Your task to perform on an android device: uninstall "Upside-Cash back on gas & food" Image 0: 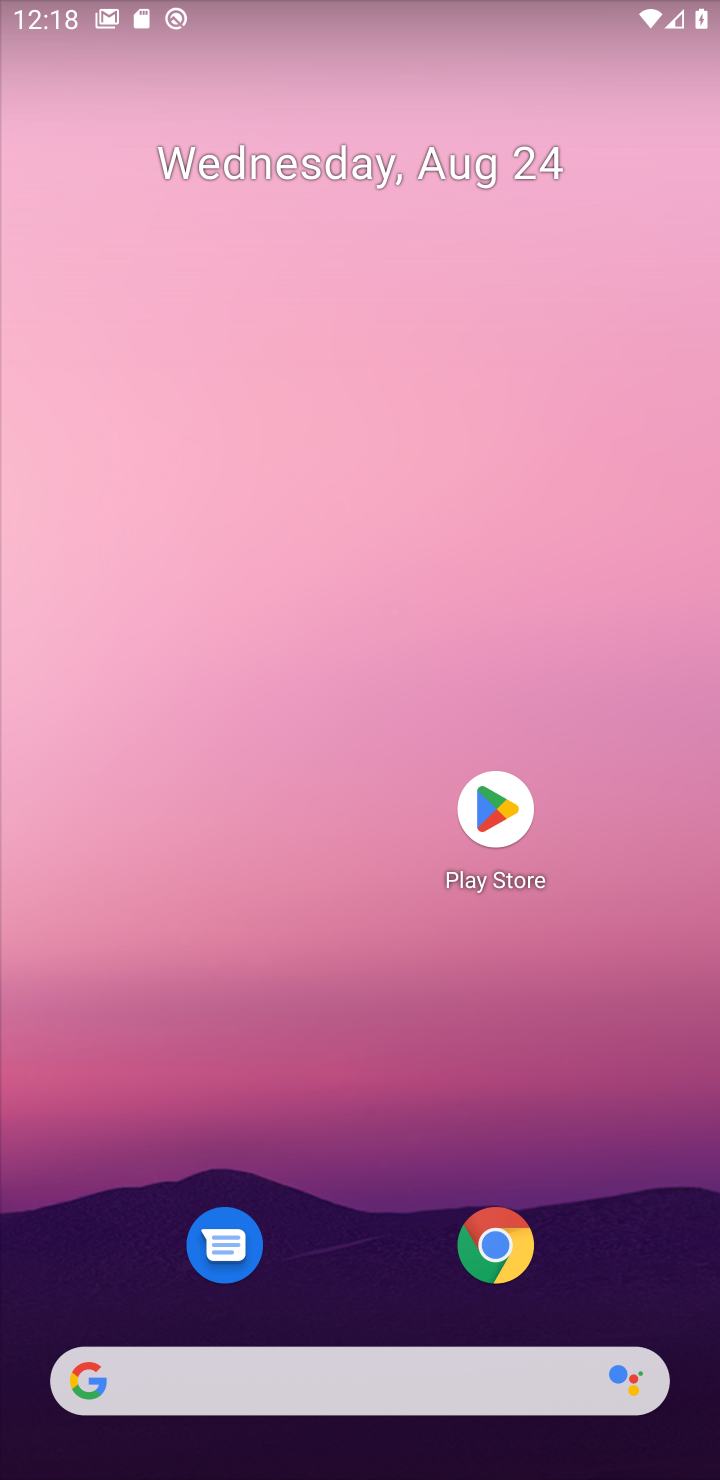
Step 0: click (490, 800)
Your task to perform on an android device: uninstall "Upside-Cash back on gas & food" Image 1: 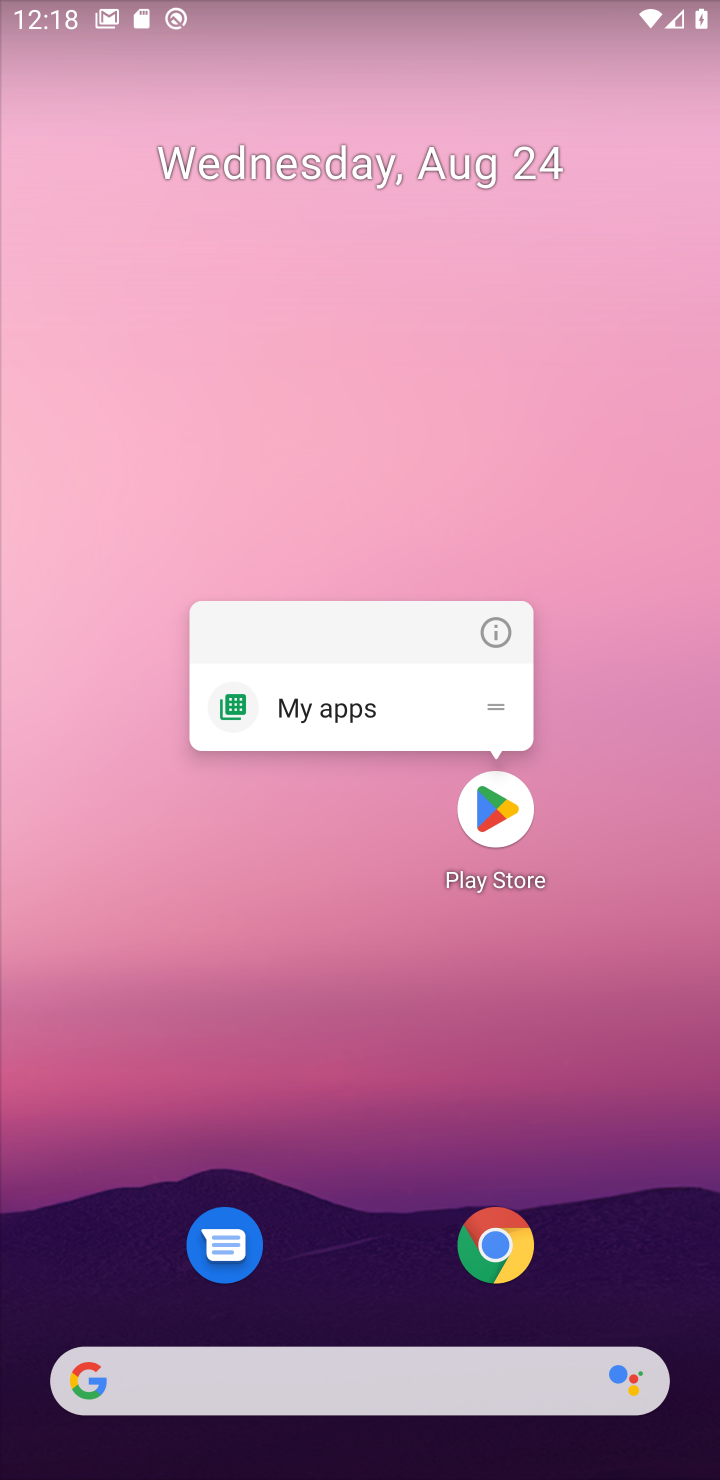
Step 1: click (490, 804)
Your task to perform on an android device: uninstall "Upside-Cash back on gas & food" Image 2: 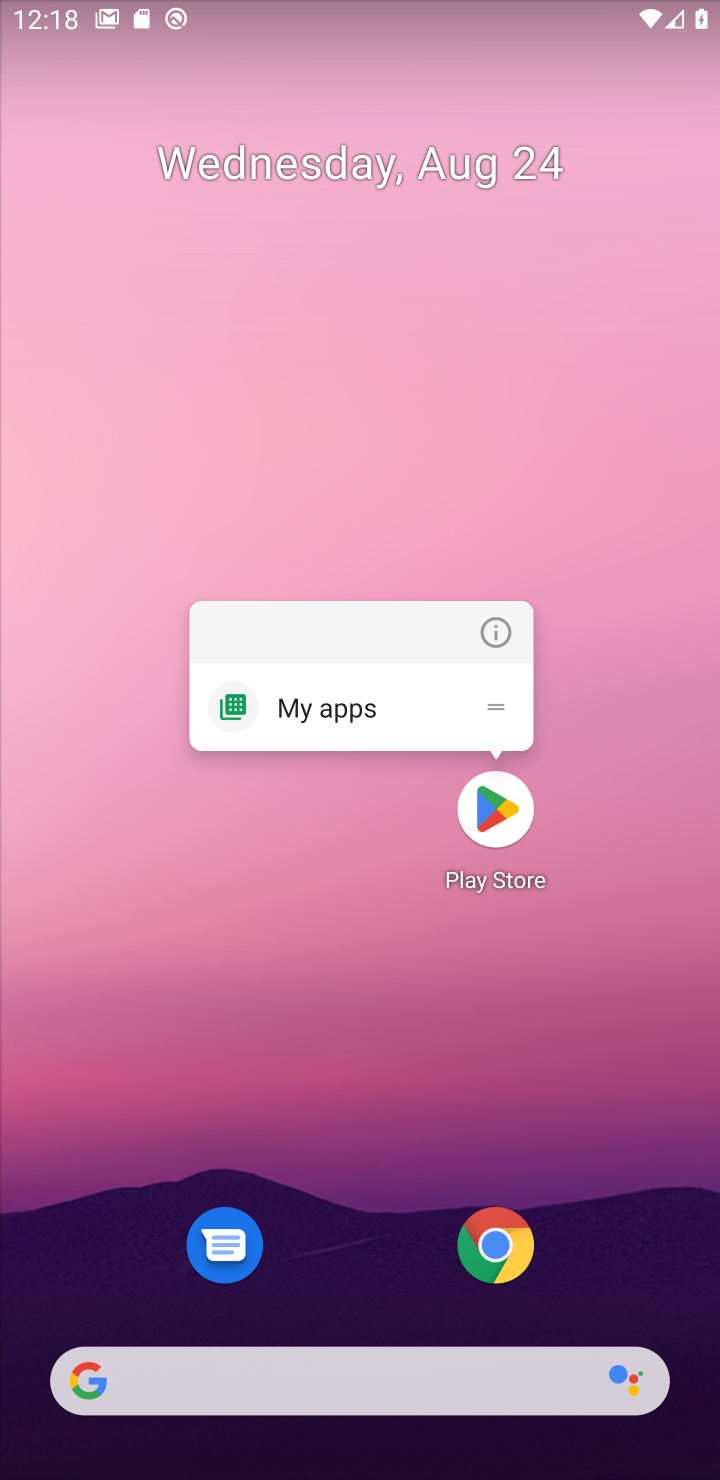
Step 2: click (490, 804)
Your task to perform on an android device: uninstall "Upside-Cash back on gas & food" Image 3: 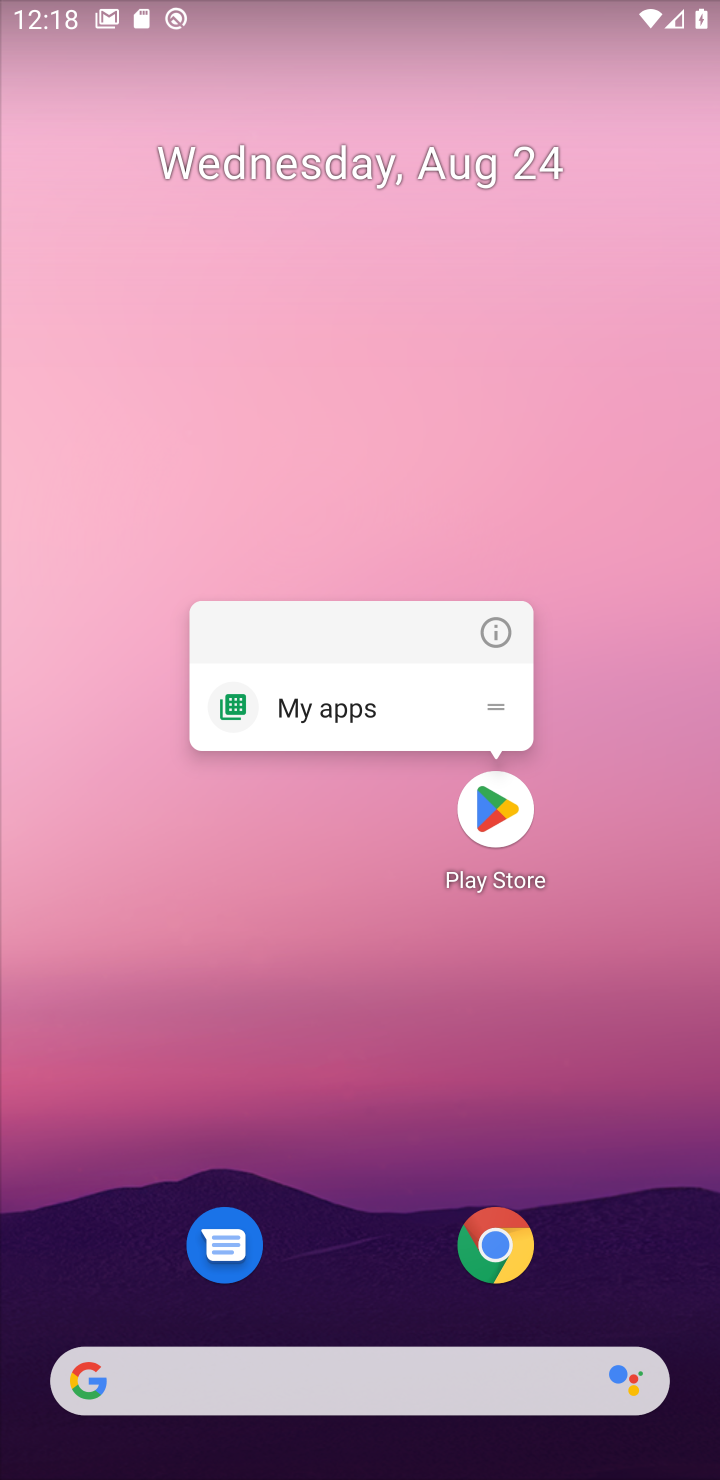
Step 3: click (490, 804)
Your task to perform on an android device: uninstall "Upside-Cash back on gas & food" Image 4: 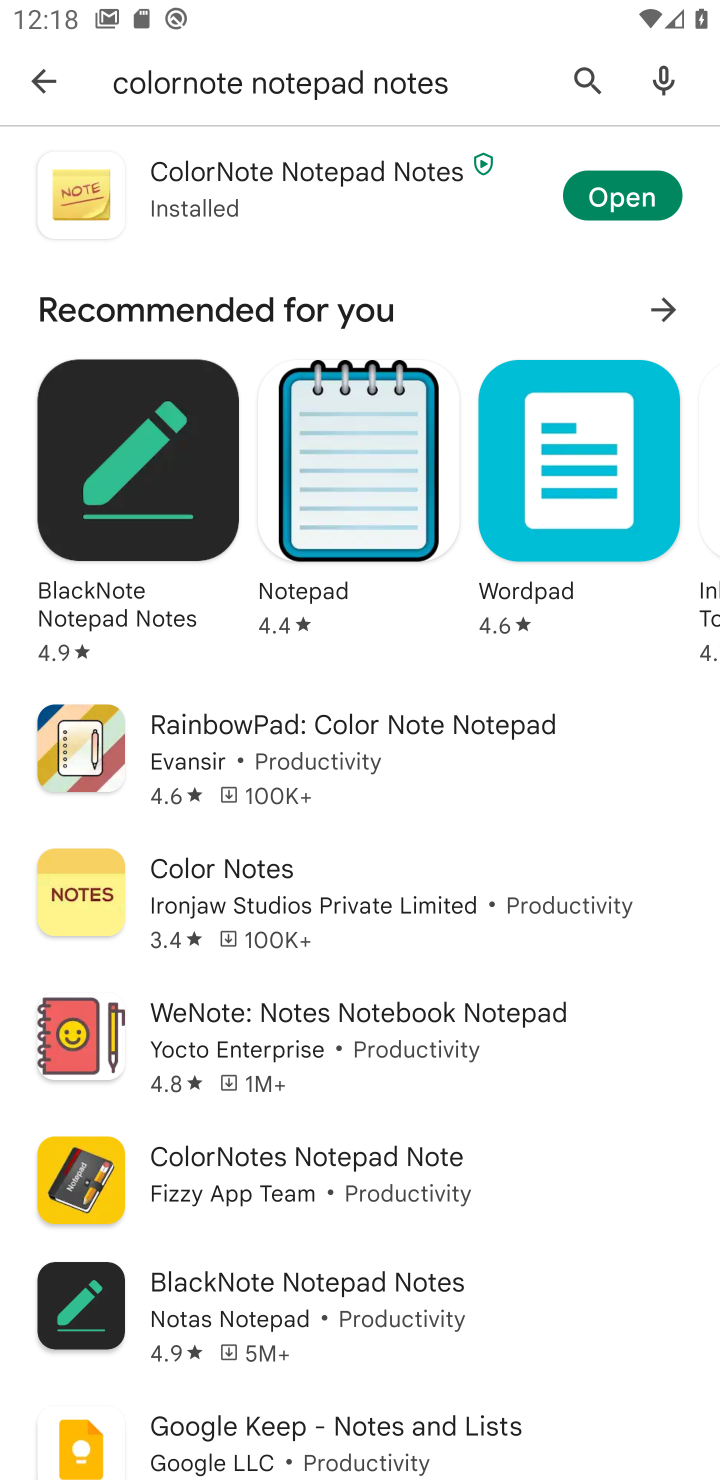
Step 4: click (582, 74)
Your task to perform on an android device: uninstall "Upside-Cash back on gas & food" Image 5: 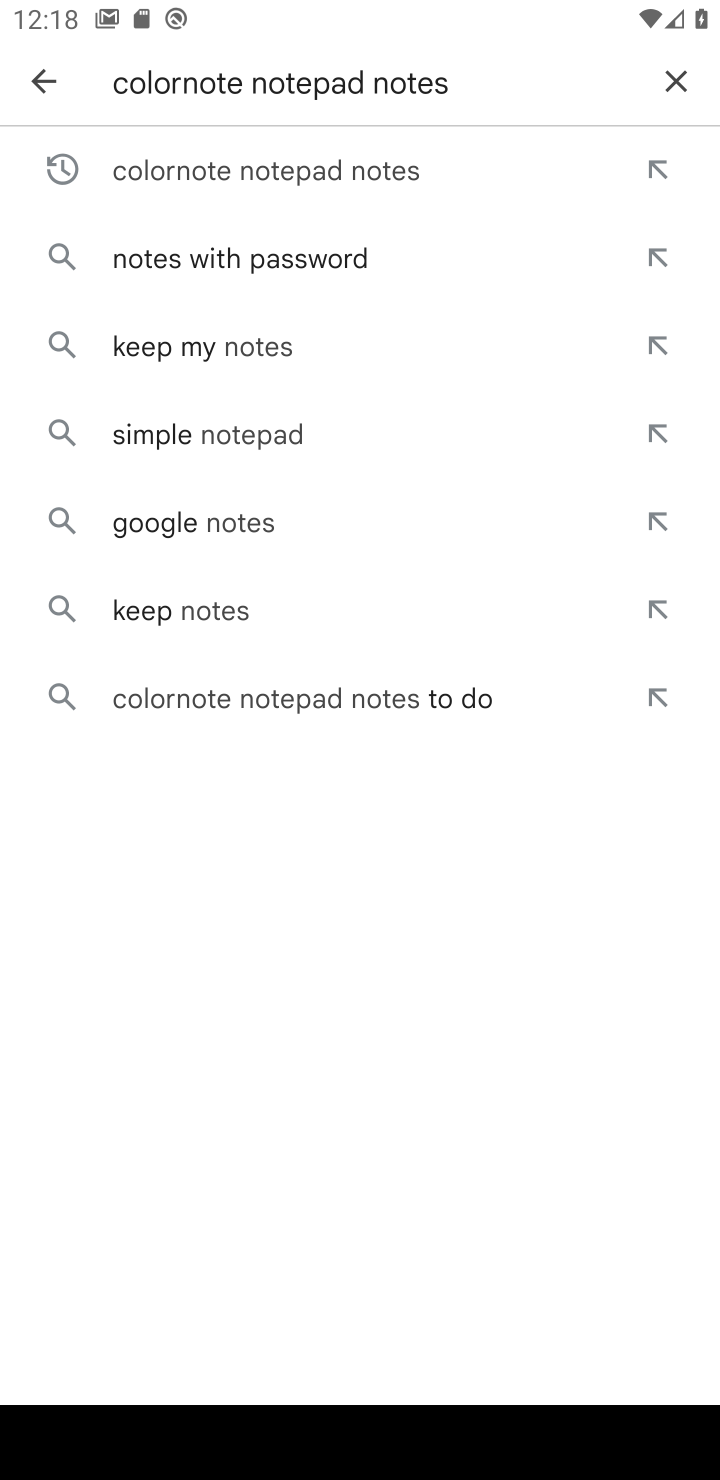
Step 5: click (671, 80)
Your task to perform on an android device: uninstall "Upside-Cash back on gas & food" Image 6: 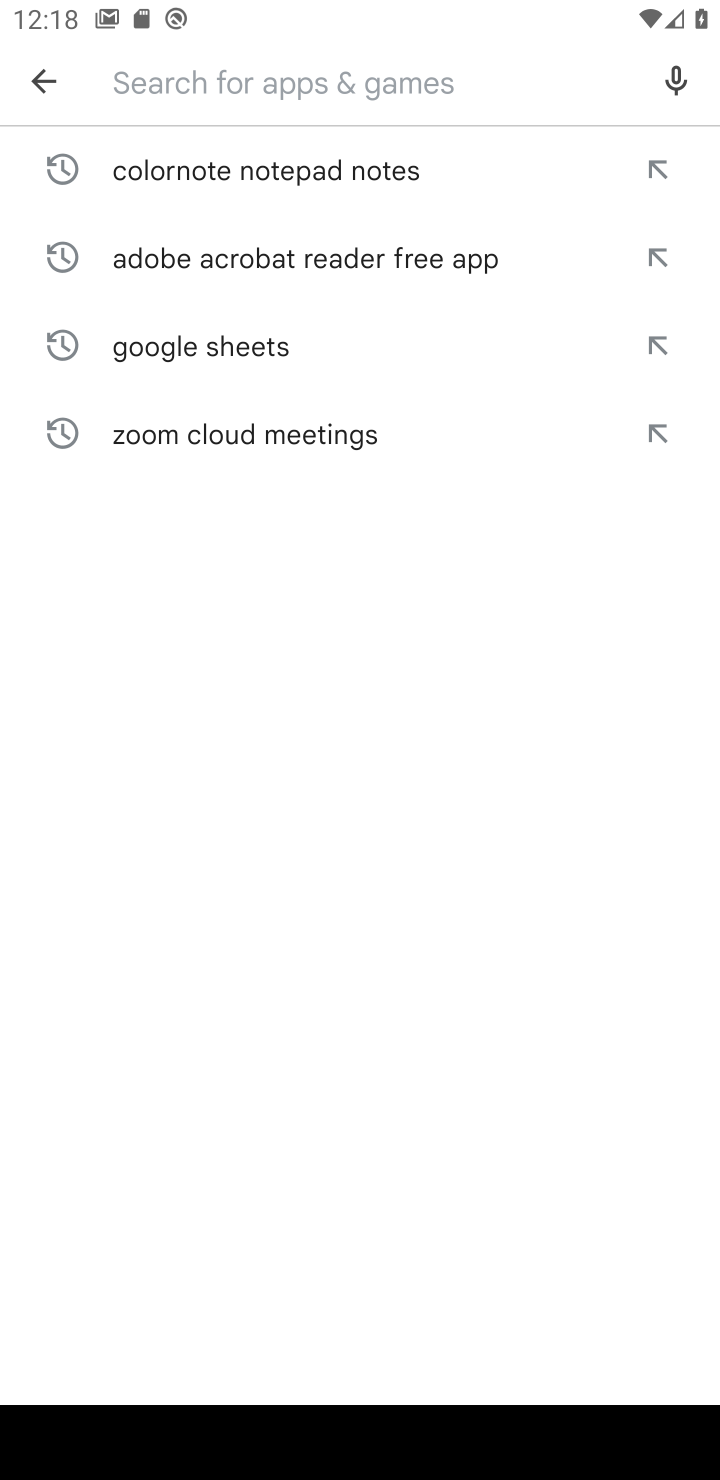
Step 6: type "Upside-Cash back on gas & food"
Your task to perform on an android device: uninstall "Upside-Cash back on gas & food" Image 7: 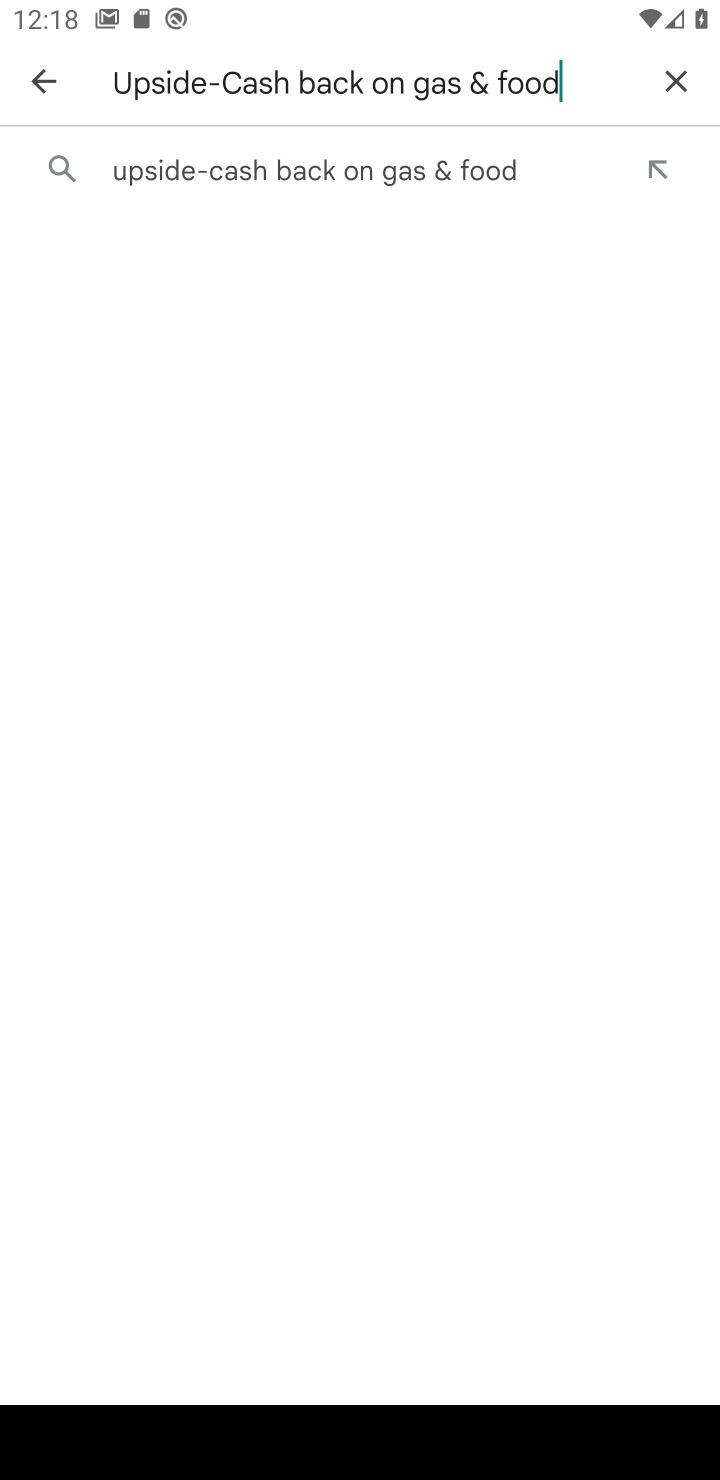
Step 7: click (323, 170)
Your task to perform on an android device: uninstall "Upside-Cash back on gas & food" Image 8: 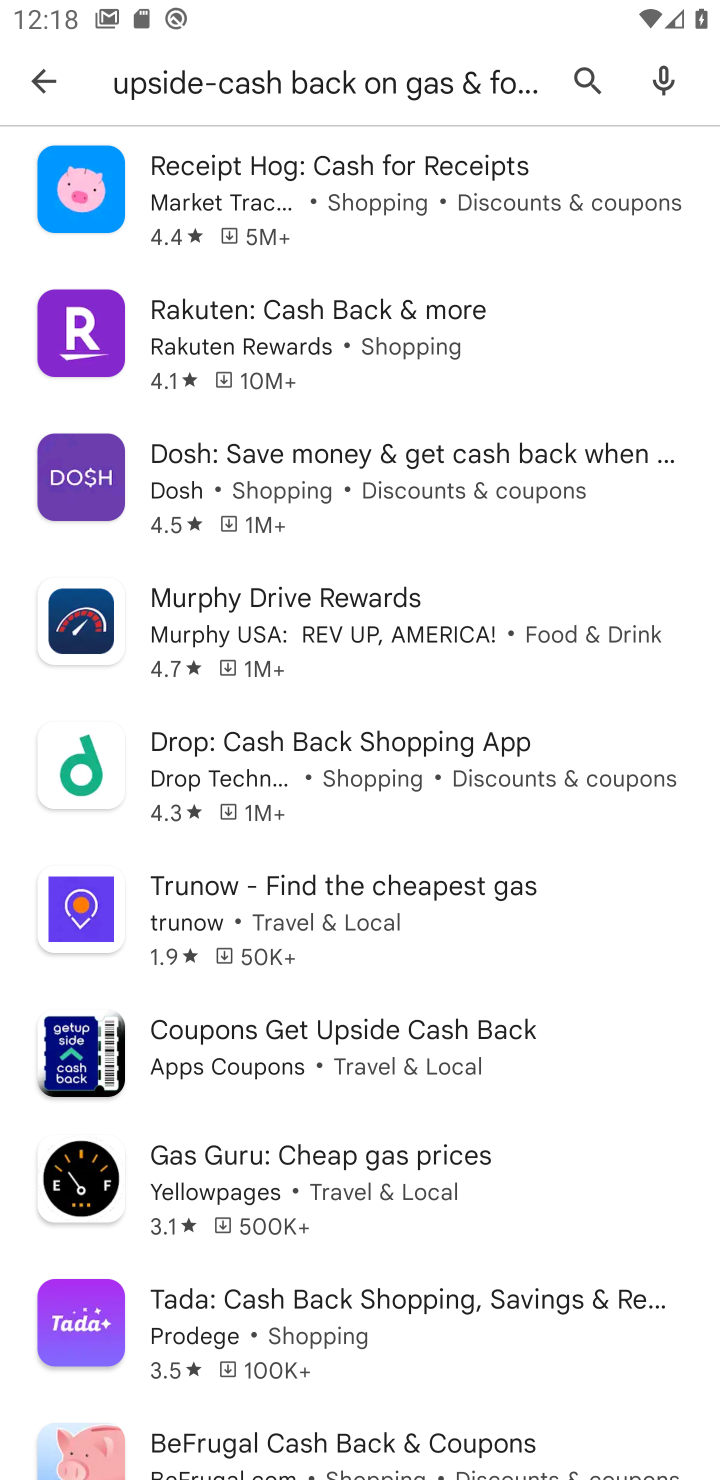
Step 8: task complete